Your task to perform on an android device: Show me the alarms in the clock app Image 0: 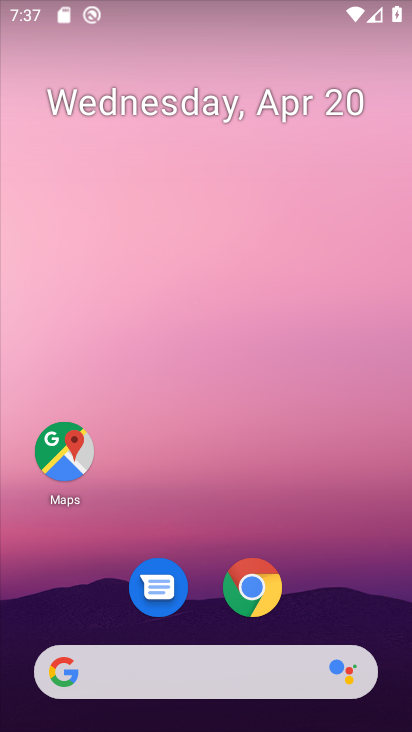
Step 0: drag from (319, 613) to (272, 137)
Your task to perform on an android device: Show me the alarms in the clock app Image 1: 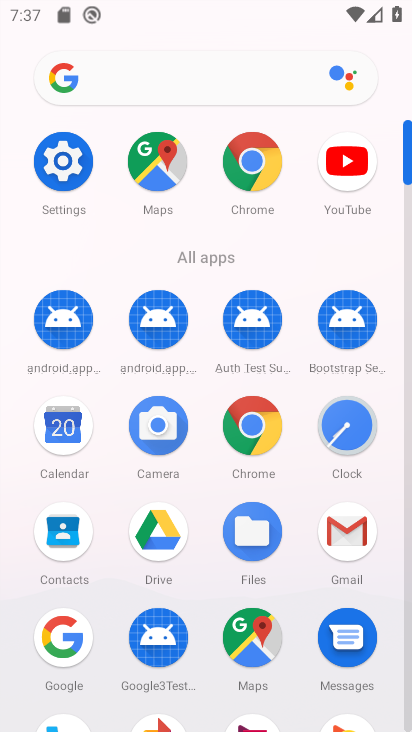
Step 1: click (63, 160)
Your task to perform on an android device: Show me the alarms in the clock app Image 2: 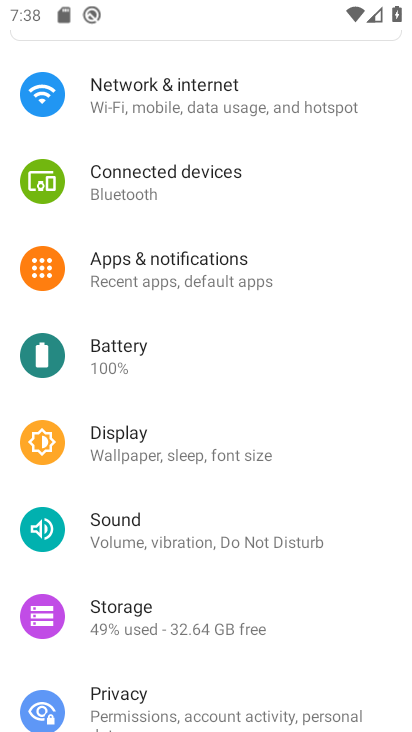
Step 2: press back button
Your task to perform on an android device: Show me the alarms in the clock app Image 3: 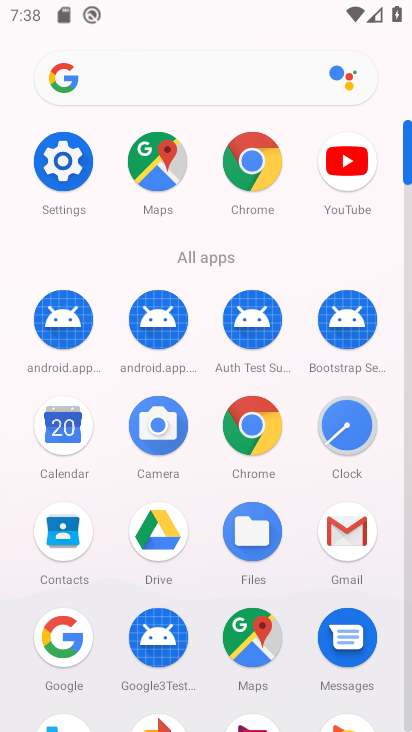
Step 3: click (360, 429)
Your task to perform on an android device: Show me the alarms in the clock app Image 4: 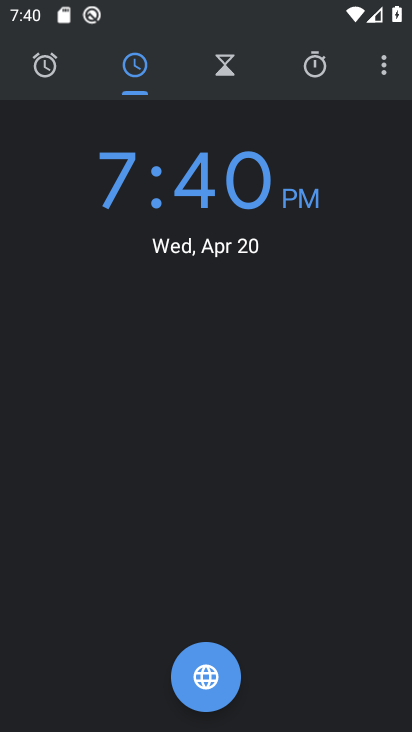
Step 4: click (57, 65)
Your task to perform on an android device: Show me the alarms in the clock app Image 5: 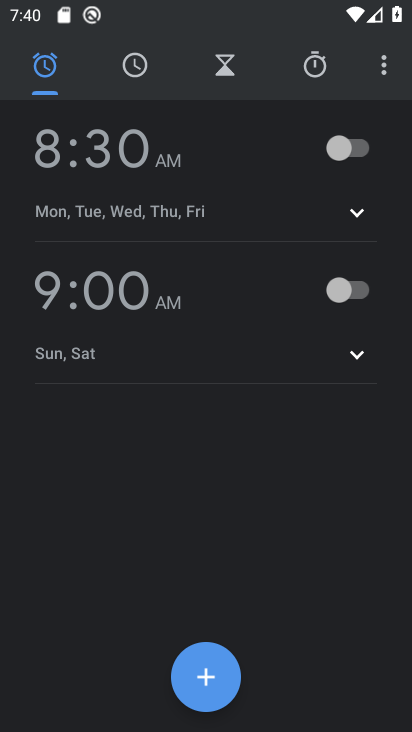
Step 5: task complete